Your task to perform on an android device: open a bookmark in the chrome app Image 0: 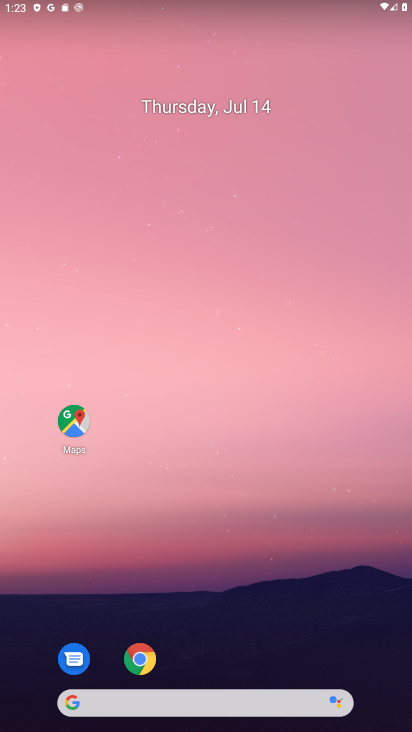
Step 0: click (146, 659)
Your task to perform on an android device: open a bookmark in the chrome app Image 1: 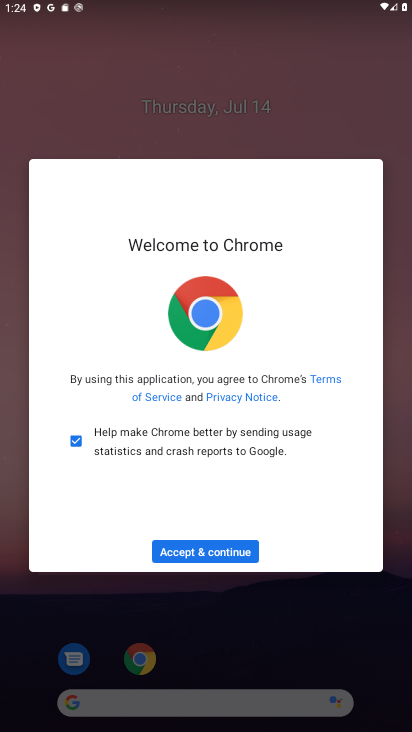
Step 1: click (221, 556)
Your task to perform on an android device: open a bookmark in the chrome app Image 2: 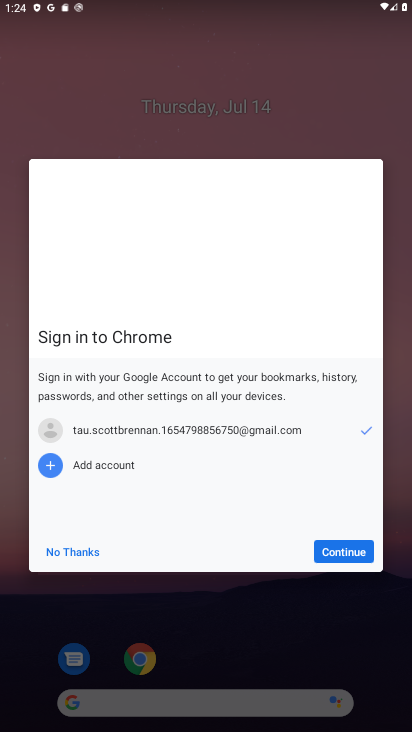
Step 2: click (350, 554)
Your task to perform on an android device: open a bookmark in the chrome app Image 3: 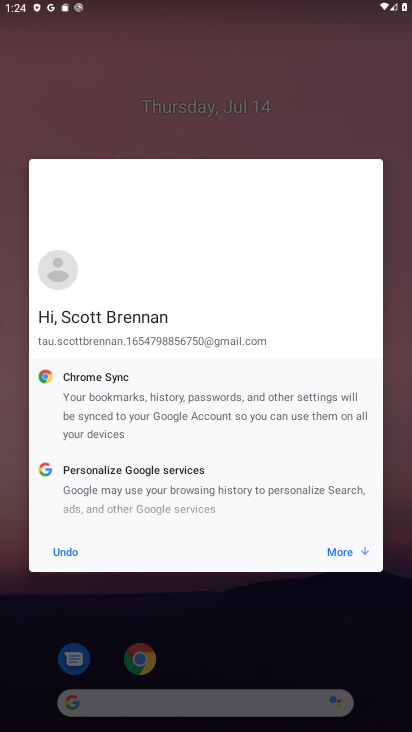
Step 3: click (348, 550)
Your task to perform on an android device: open a bookmark in the chrome app Image 4: 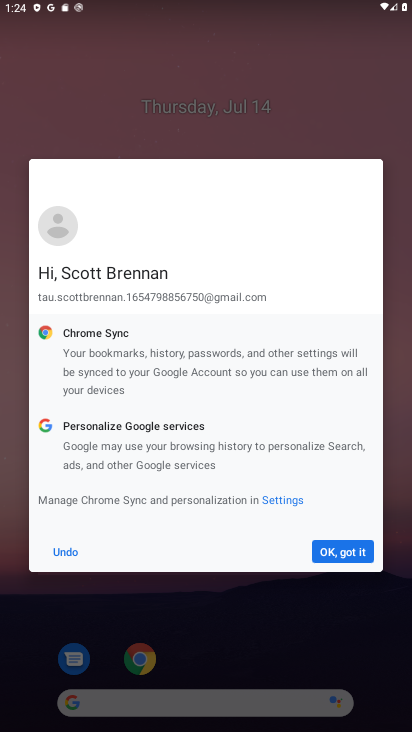
Step 4: click (347, 550)
Your task to perform on an android device: open a bookmark in the chrome app Image 5: 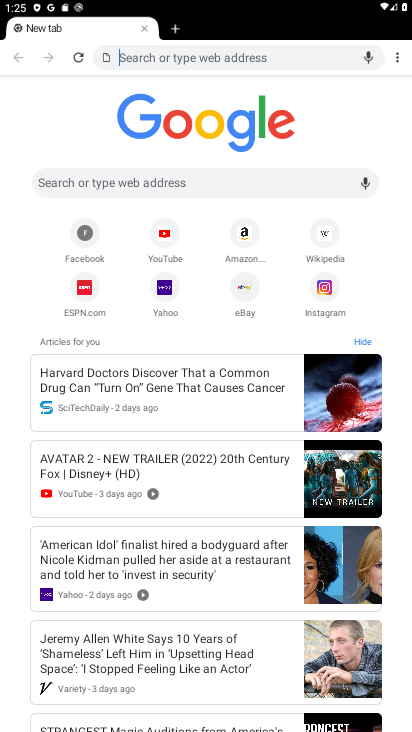
Step 5: click (398, 61)
Your task to perform on an android device: open a bookmark in the chrome app Image 6: 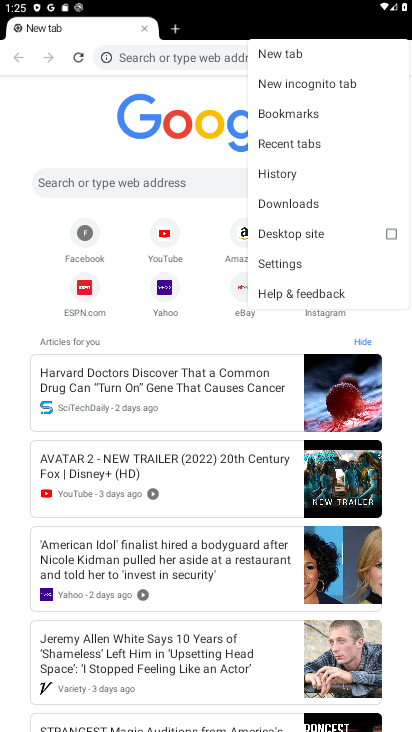
Step 6: click (298, 113)
Your task to perform on an android device: open a bookmark in the chrome app Image 7: 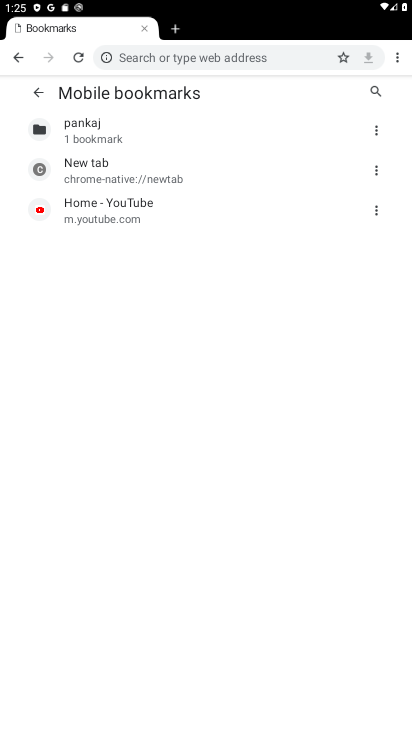
Step 7: click (107, 201)
Your task to perform on an android device: open a bookmark in the chrome app Image 8: 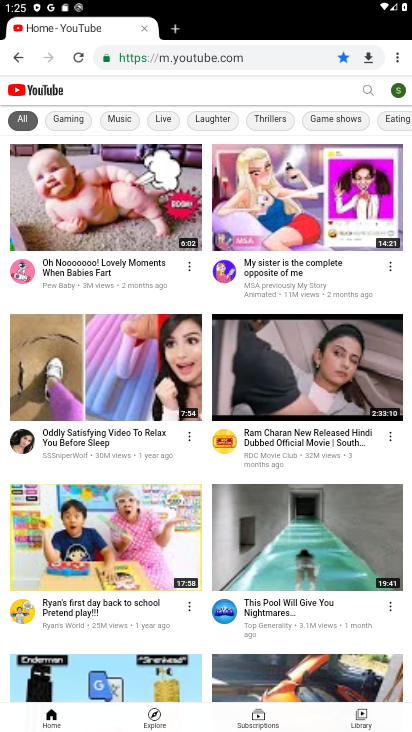
Step 8: task complete